Your task to perform on an android device: find which apps use the phone's location Image 0: 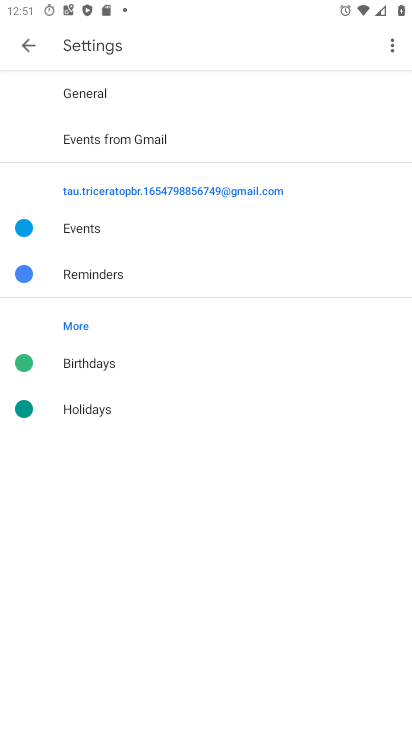
Step 0: press home button
Your task to perform on an android device: find which apps use the phone's location Image 1: 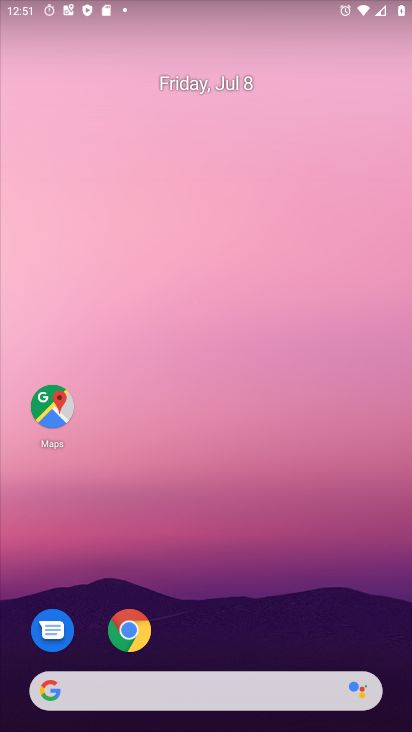
Step 1: drag from (240, 584) to (205, 201)
Your task to perform on an android device: find which apps use the phone's location Image 2: 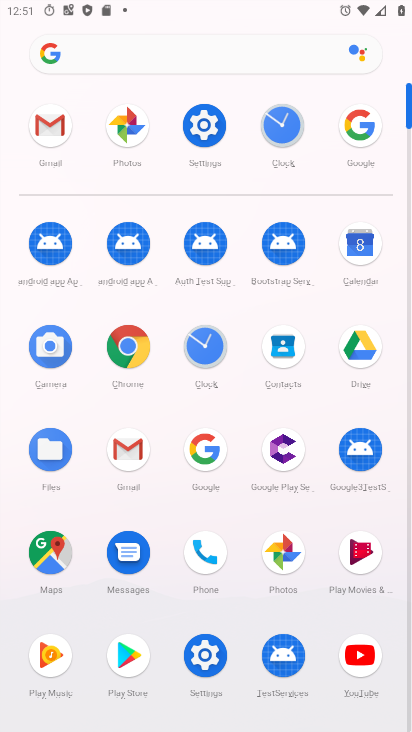
Step 2: click (180, 111)
Your task to perform on an android device: find which apps use the phone's location Image 3: 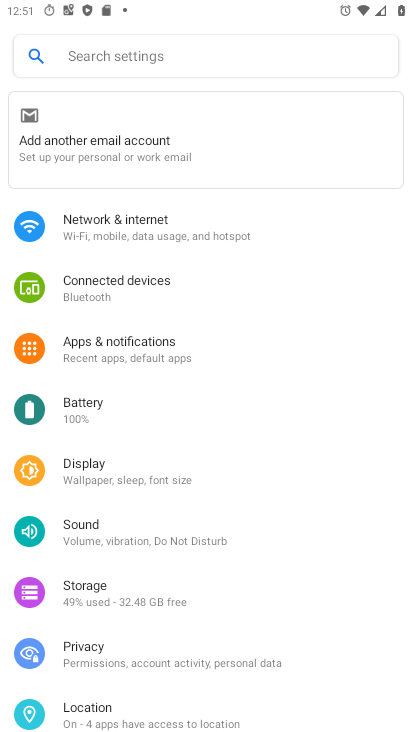
Step 3: click (110, 709)
Your task to perform on an android device: find which apps use the phone's location Image 4: 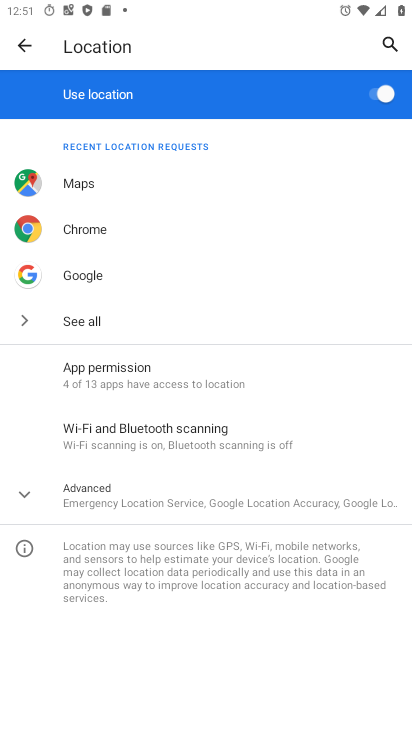
Step 4: click (156, 376)
Your task to perform on an android device: find which apps use the phone's location Image 5: 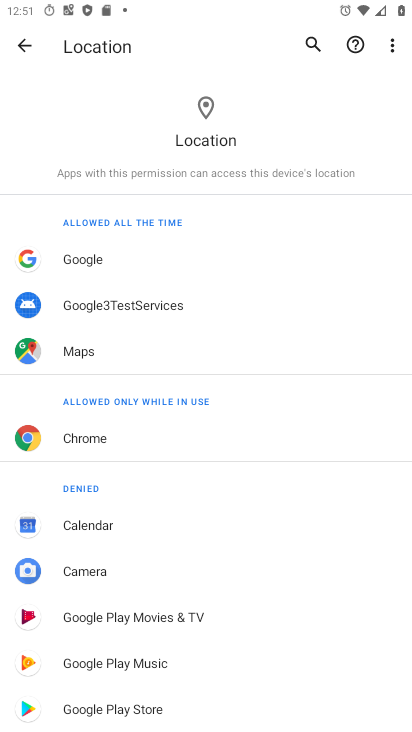
Step 5: task complete